Your task to perform on an android device: Clear all items from cart on amazon.com. Image 0: 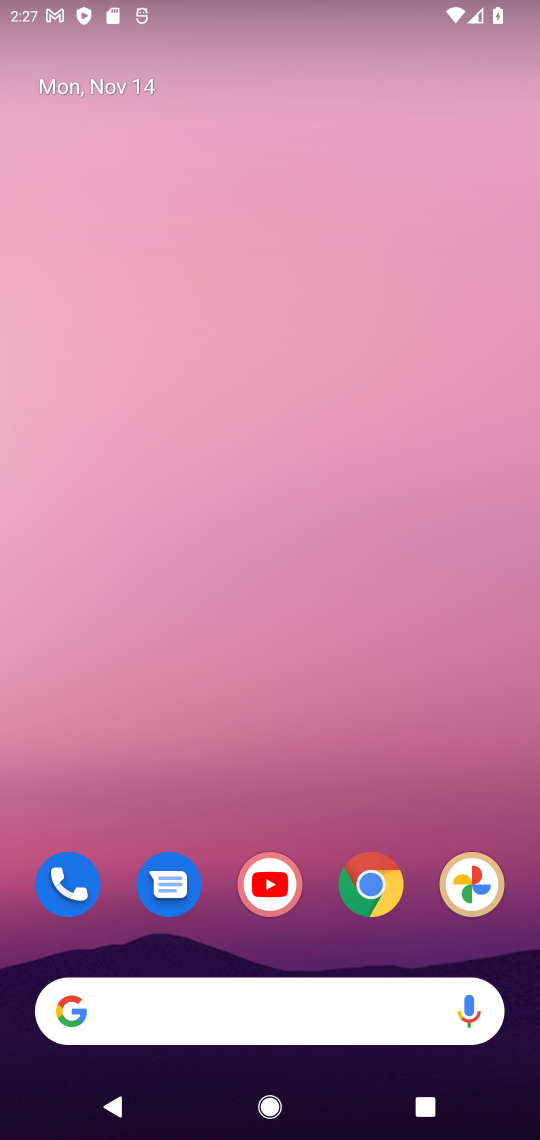
Step 0: click (369, 900)
Your task to perform on an android device: Clear all items from cart on amazon.com. Image 1: 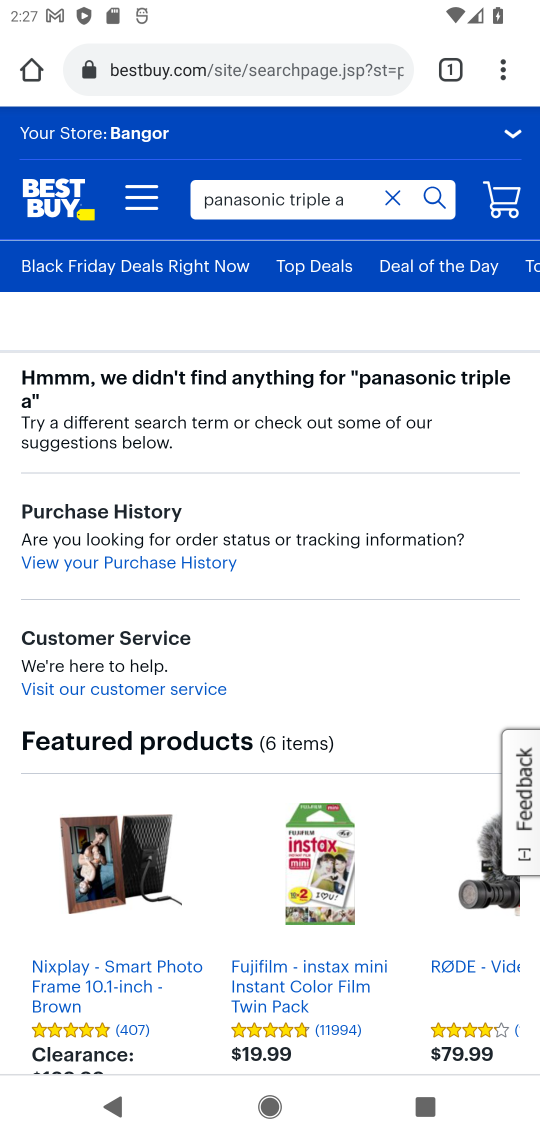
Step 1: click (129, 71)
Your task to perform on an android device: Clear all items from cart on amazon.com. Image 2: 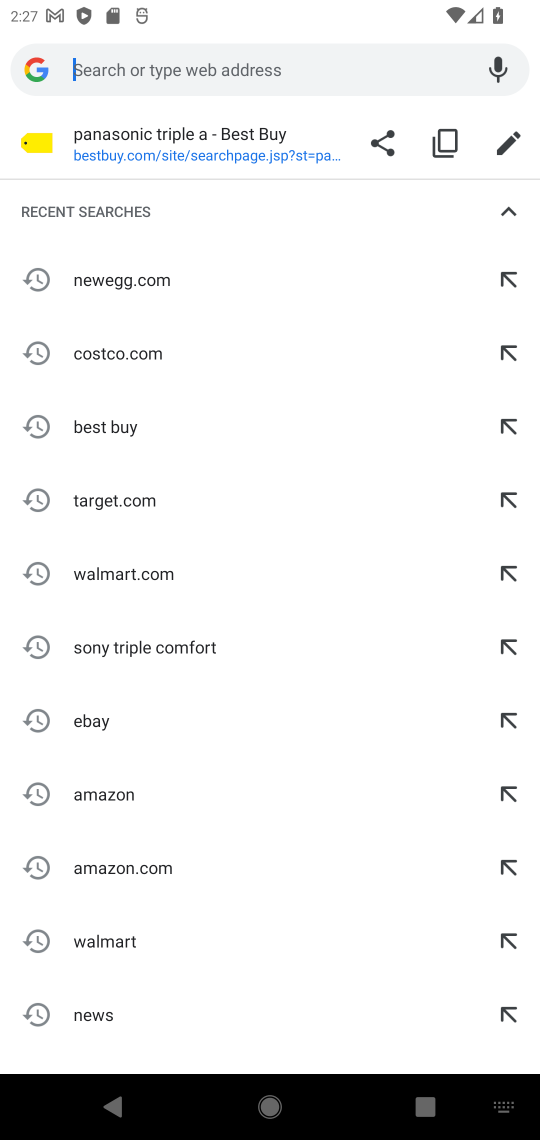
Step 2: click (123, 869)
Your task to perform on an android device: Clear all items from cart on amazon.com. Image 3: 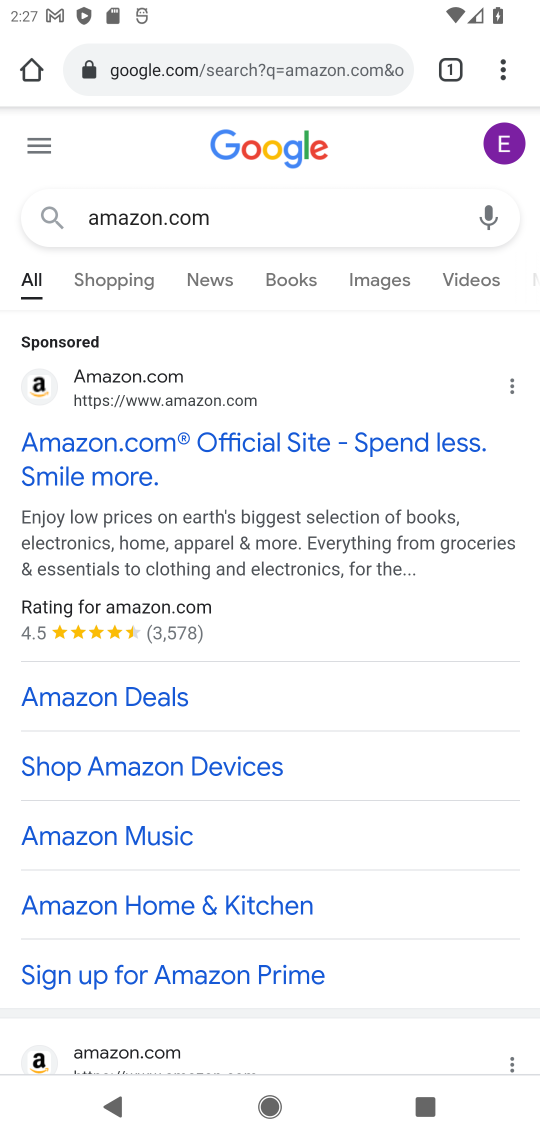
Step 3: click (182, 399)
Your task to perform on an android device: Clear all items from cart on amazon.com. Image 4: 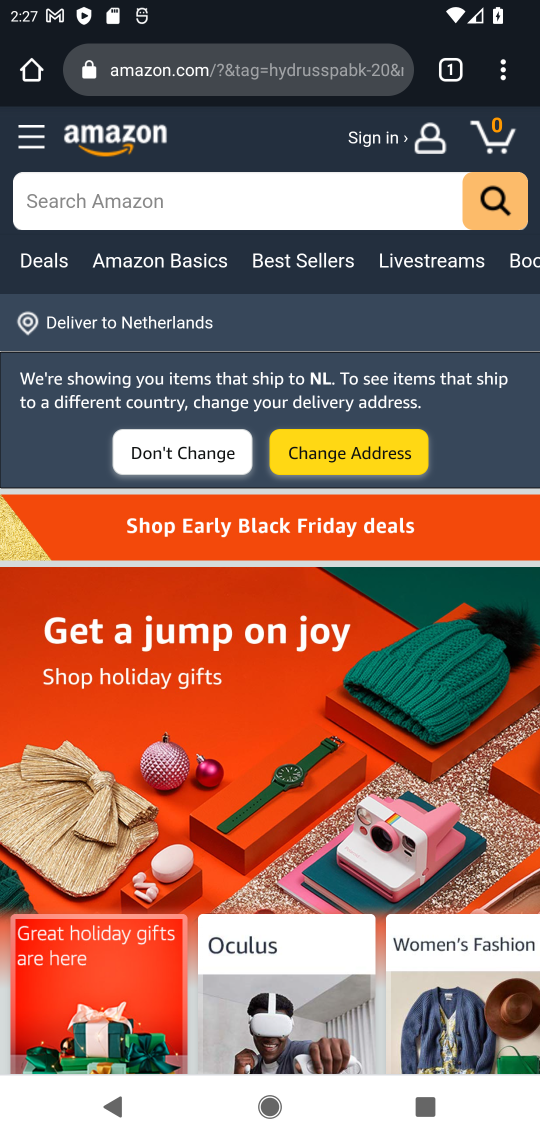
Step 4: task complete